Your task to perform on an android device: add a contact in the contacts app Image 0: 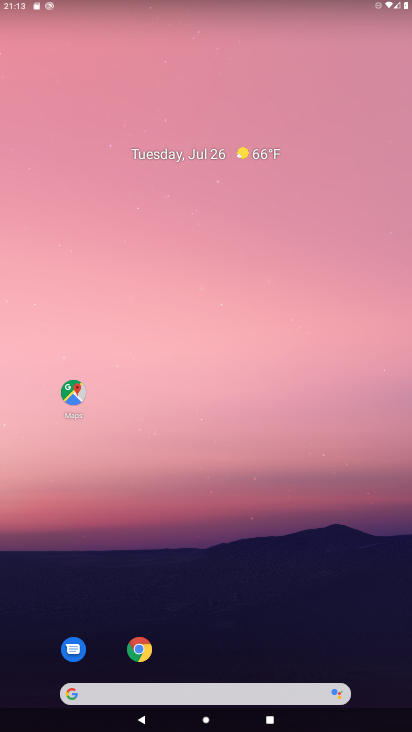
Step 0: drag from (101, 706) to (265, 38)
Your task to perform on an android device: add a contact in the contacts app Image 1: 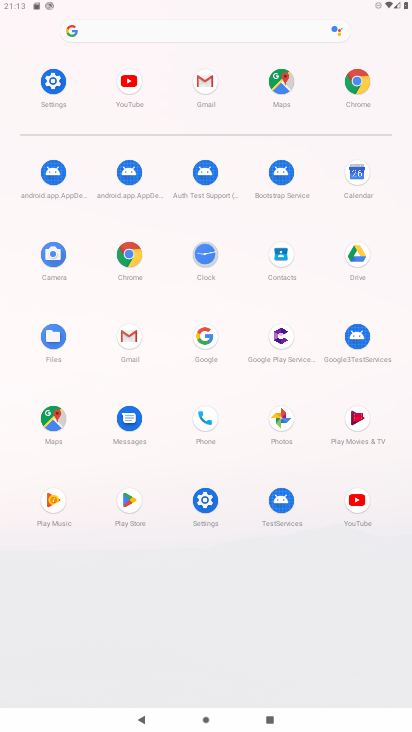
Step 1: click (277, 257)
Your task to perform on an android device: add a contact in the contacts app Image 2: 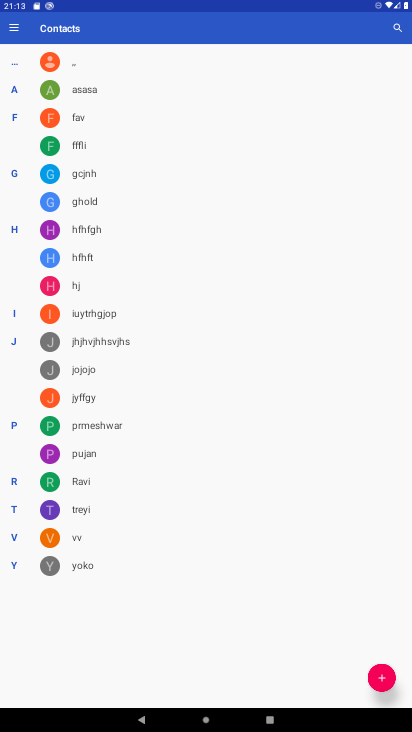
Step 2: click (387, 677)
Your task to perform on an android device: add a contact in the contacts app Image 3: 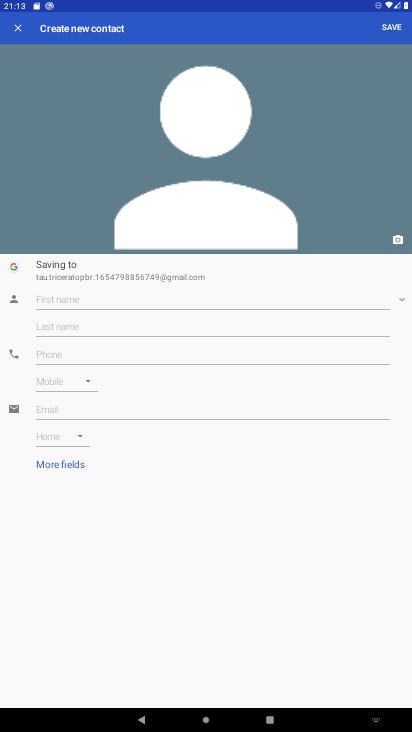
Step 3: click (205, 298)
Your task to perform on an android device: add a contact in the contacts app Image 4: 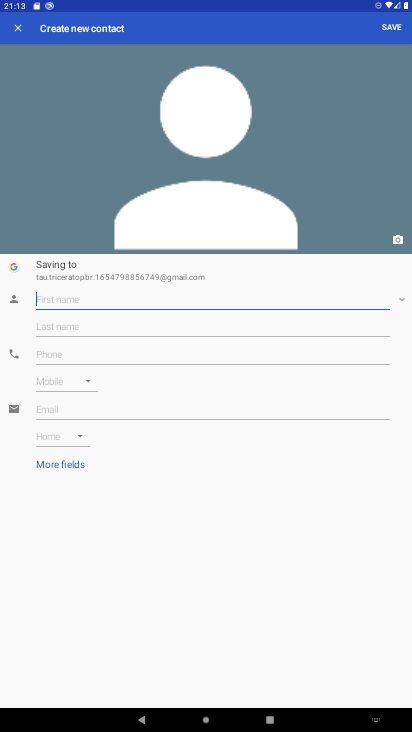
Step 4: type "ghchgjg"
Your task to perform on an android device: add a contact in the contacts app Image 5: 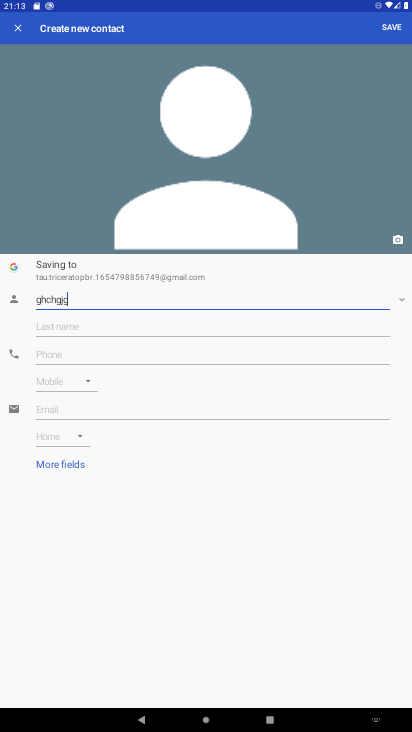
Step 5: click (62, 354)
Your task to perform on an android device: add a contact in the contacts app Image 6: 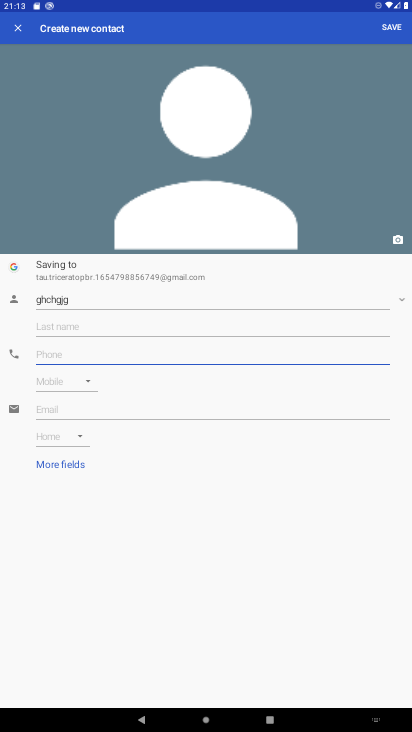
Step 6: type "877889"
Your task to perform on an android device: add a contact in the contacts app Image 7: 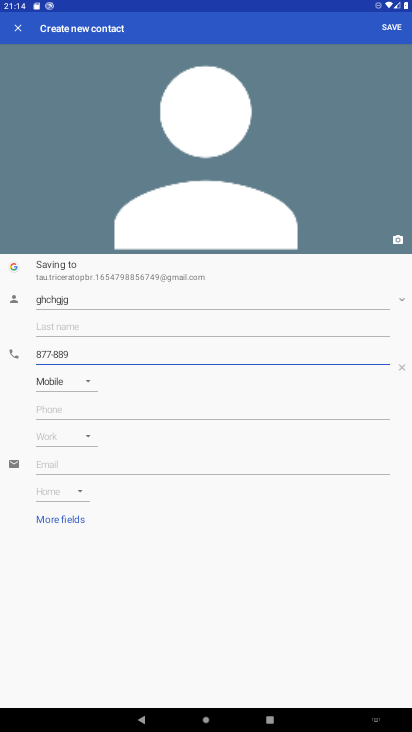
Step 7: click (391, 28)
Your task to perform on an android device: add a contact in the contacts app Image 8: 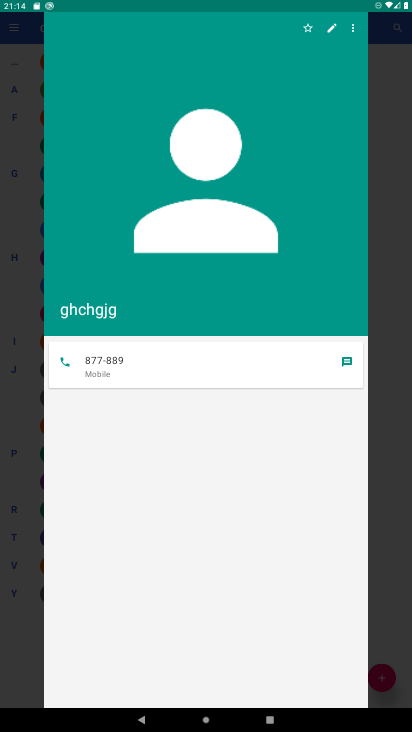
Step 8: task complete